Your task to perform on an android device: Open eBay Image 0: 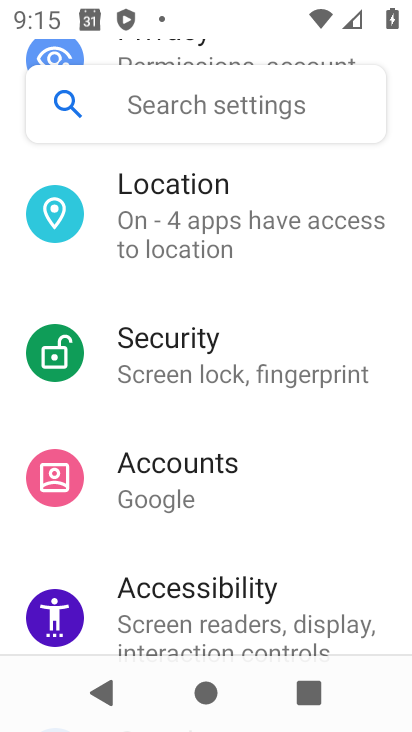
Step 0: press home button
Your task to perform on an android device: Open eBay Image 1: 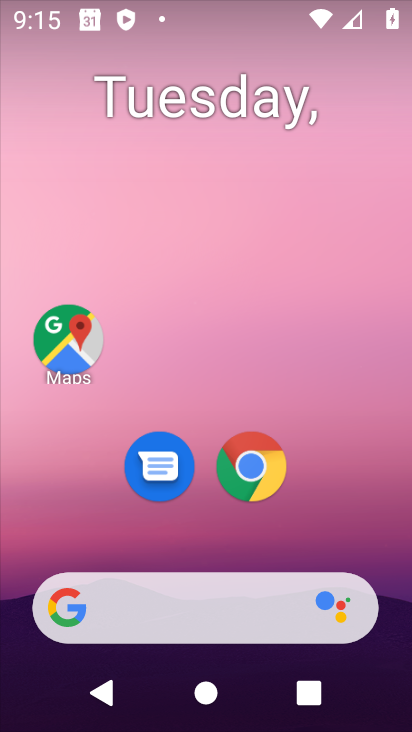
Step 1: click (250, 452)
Your task to perform on an android device: Open eBay Image 2: 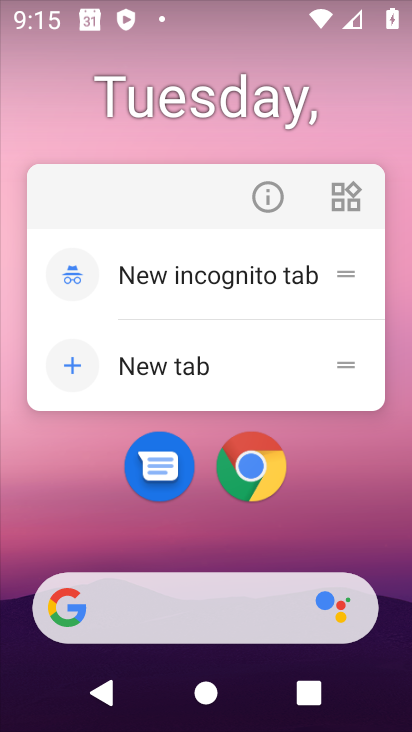
Step 2: click (247, 460)
Your task to perform on an android device: Open eBay Image 3: 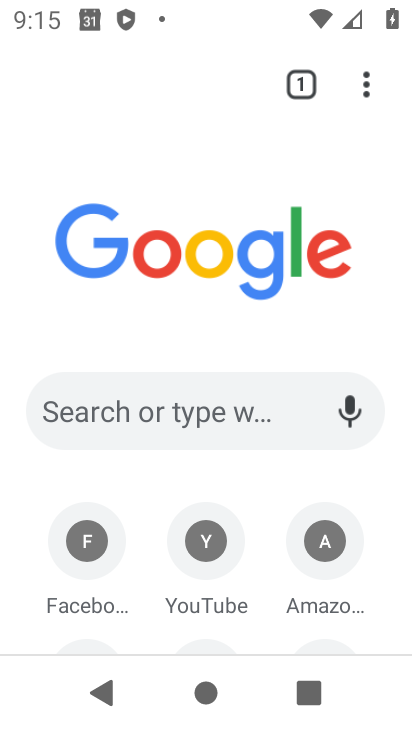
Step 3: click (239, 409)
Your task to perform on an android device: Open eBay Image 4: 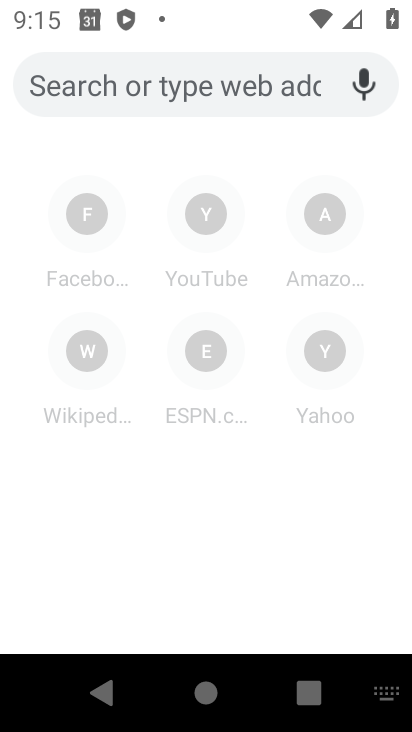
Step 4: type "ebay"
Your task to perform on an android device: Open eBay Image 5: 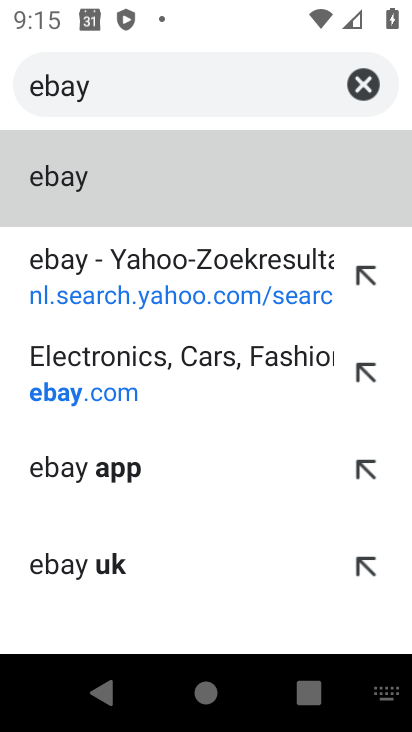
Step 5: click (55, 169)
Your task to perform on an android device: Open eBay Image 6: 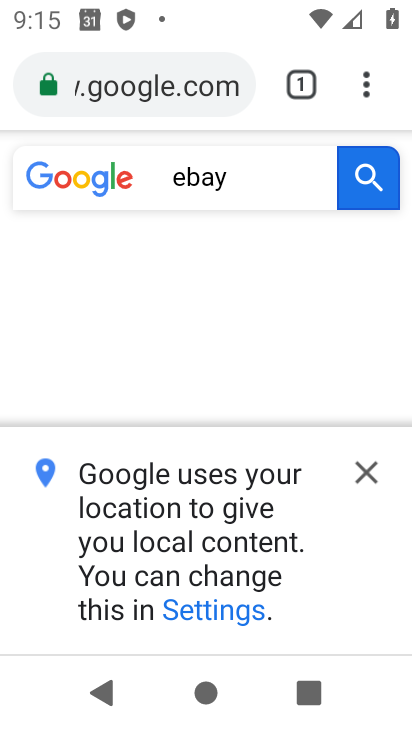
Step 6: click (369, 475)
Your task to perform on an android device: Open eBay Image 7: 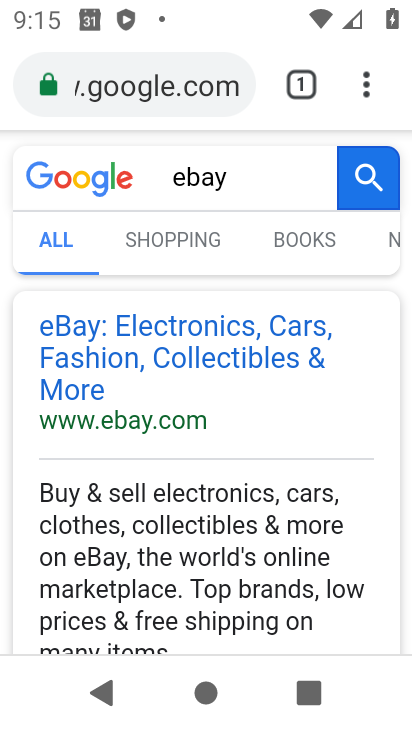
Step 7: click (123, 339)
Your task to perform on an android device: Open eBay Image 8: 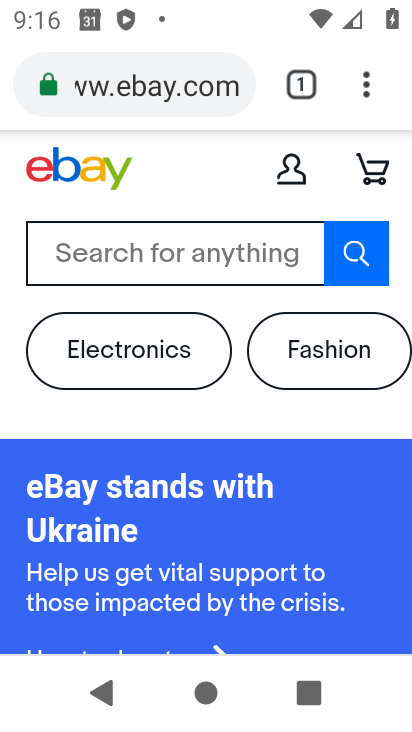
Step 8: task complete